Your task to perform on an android device: search for starred emails in the gmail app Image 0: 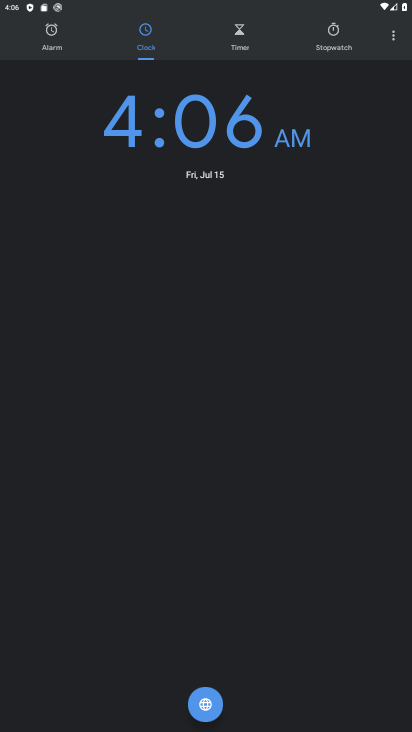
Step 0: press home button
Your task to perform on an android device: search for starred emails in the gmail app Image 1: 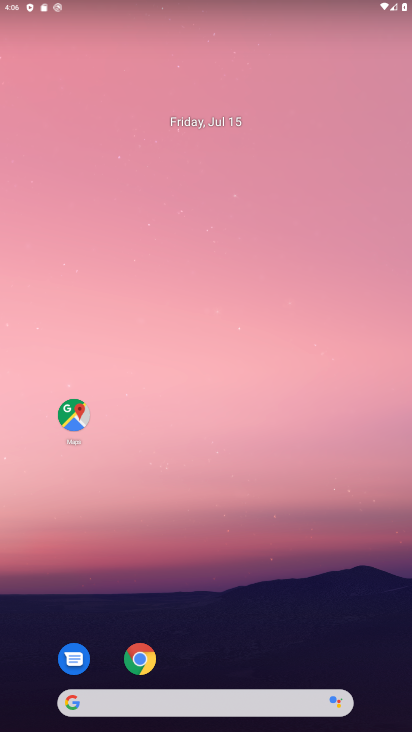
Step 1: drag from (289, 621) to (229, 82)
Your task to perform on an android device: search for starred emails in the gmail app Image 2: 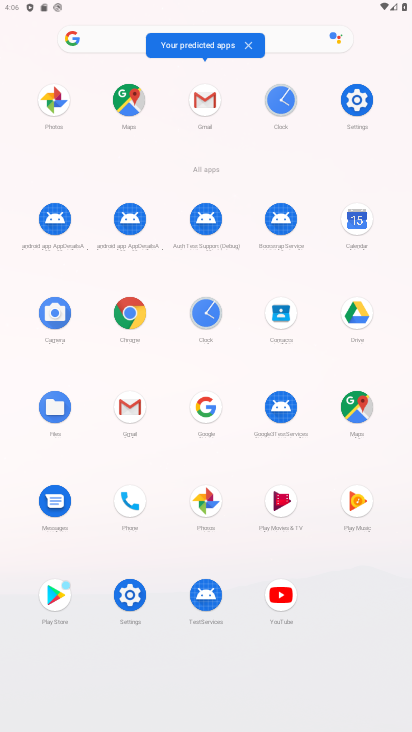
Step 2: click (203, 104)
Your task to perform on an android device: search for starred emails in the gmail app Image 3: 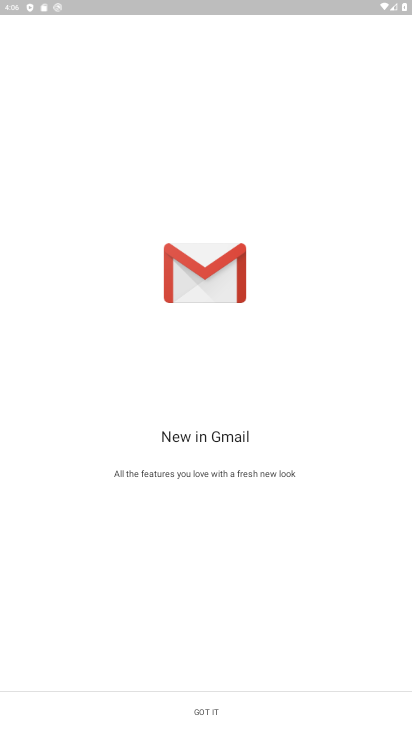
Step 3: click (227, 707)
Your task to perform on an android device: search for starred emails in the gmail app Image 4: 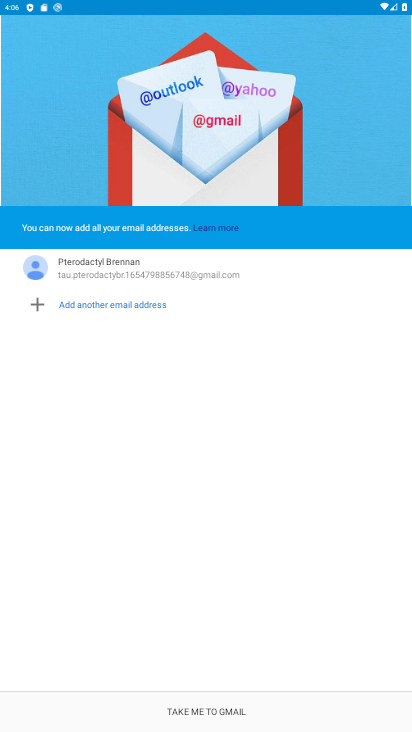
Step 4: click (227, 707)
Your task to perform on an android device: search for starred emails in the gmail app Image 5: 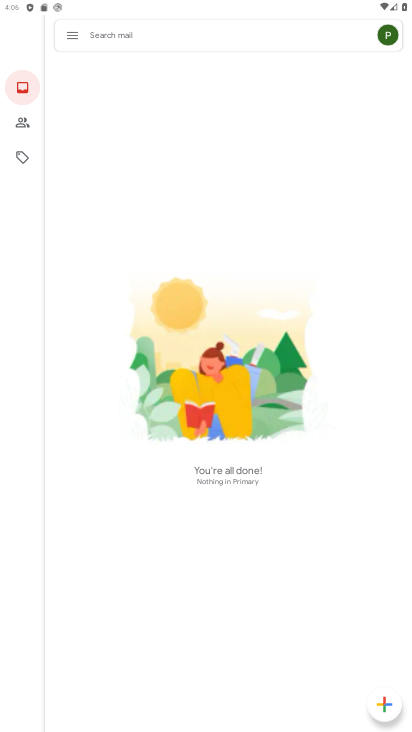
Step 5: click (69, 38)
Your task to perform on an android device: search for starred emails in the gmail app Image 6: 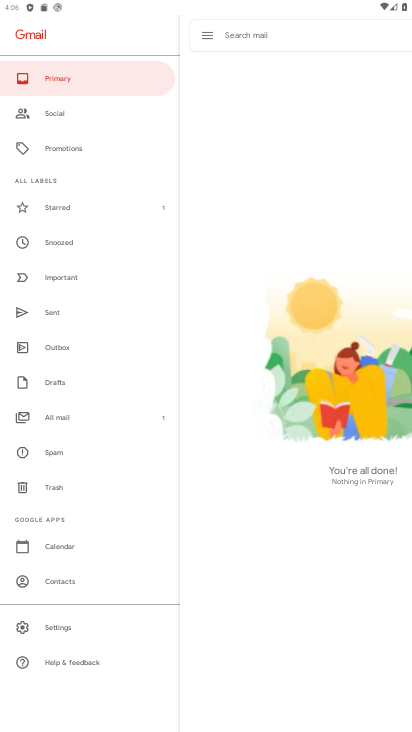
Step 6: click (99, 216)
Your task to perform on an android device: search for starred emails in the gmail app Image 7: 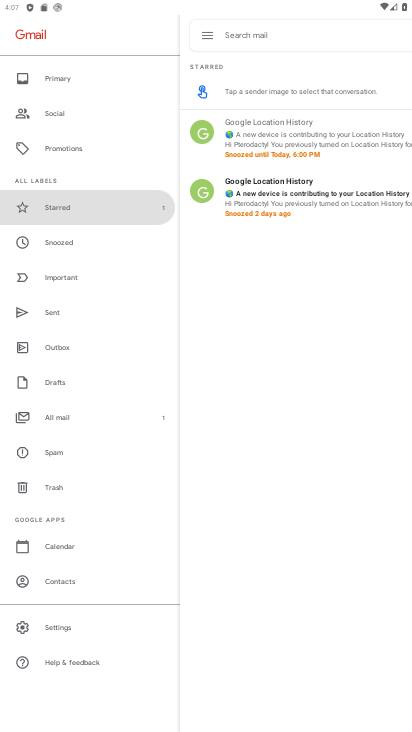
Step 7: task complete